Your task to perform on an android device: remove spam from my inbox in the gmail app Image 0: 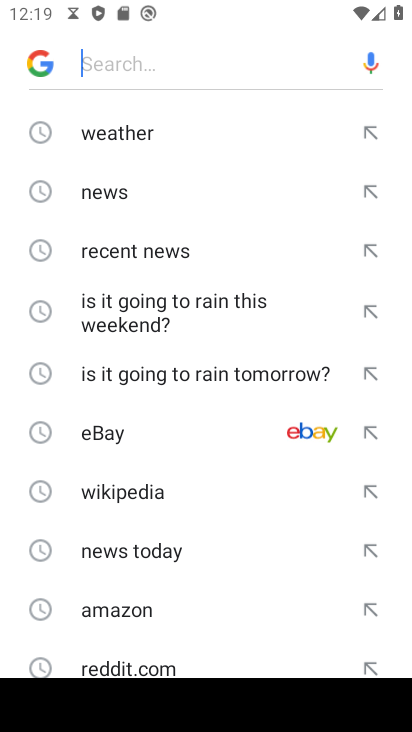
Step 0: press back button
Your task to perform on an android device: remove spam from my inbox in the gmail app Image 1: 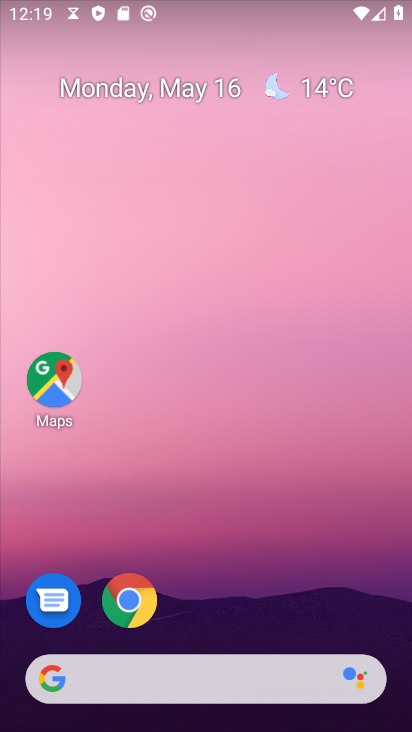
Step 1: click (166, 51)
Your task to perform on an android device: remove spam from my inbox in the gmail app Image 2: 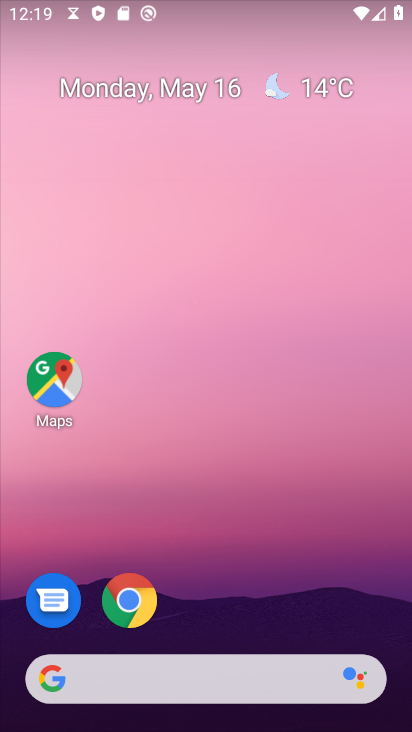
Step 2: drag from (265, 586) to (190, 37)
Your task to perform on an android device: remove spam from my inbox in the gmail app Image 3: 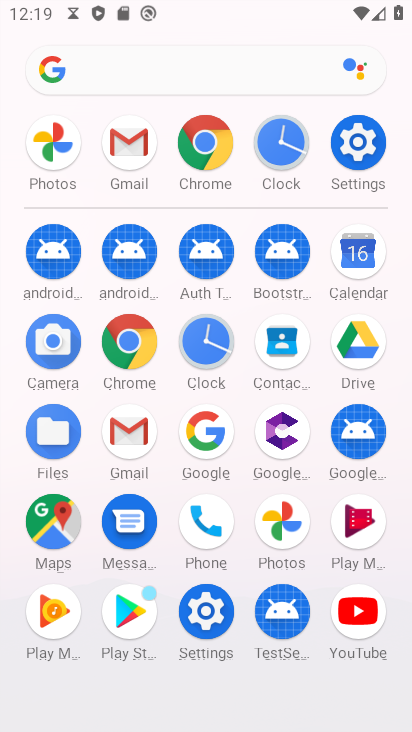
Step 3: click (127, 131)
Your task to perform on an android device: remove spam from my inbox in the gmail app Image 4: 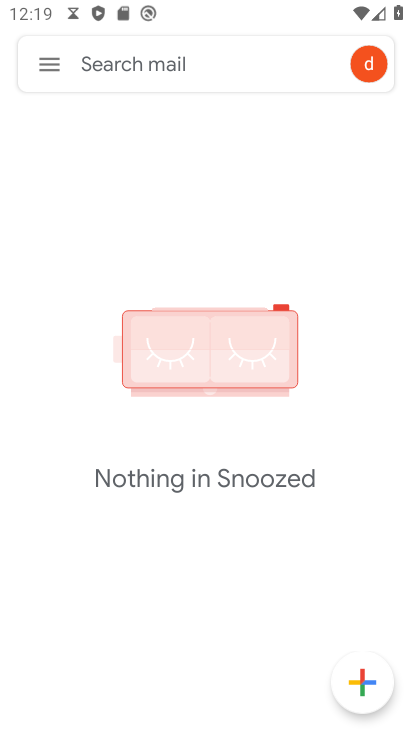
Step 4: click (58, 63)
Your task to perform on an android device: remove spam from my inbox in the gmail app Image 5: 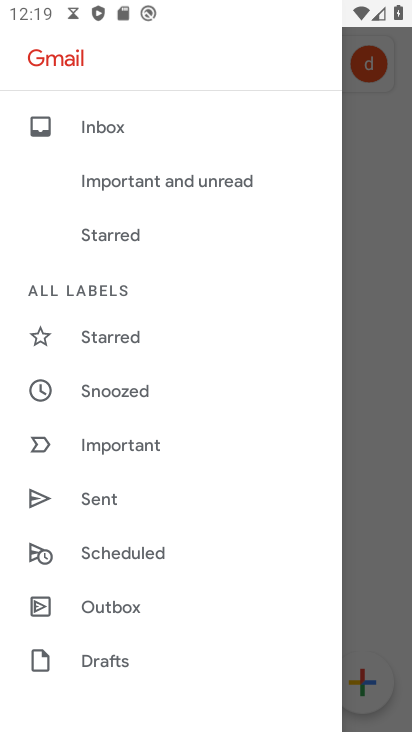
Step 5: click (51, 53)
Your task to perform on an android device: remove spam from my inbox in the gmail app Image 6: 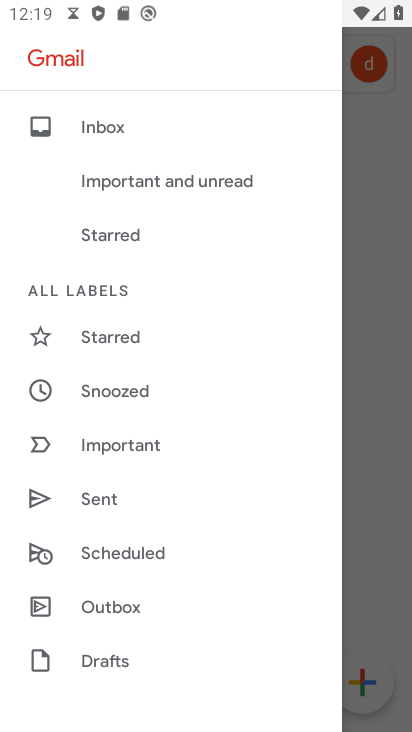
Step 6: click (54, 63)
Your task to perform on an android device: remove spam from my inbox in the gmail app Image 7: 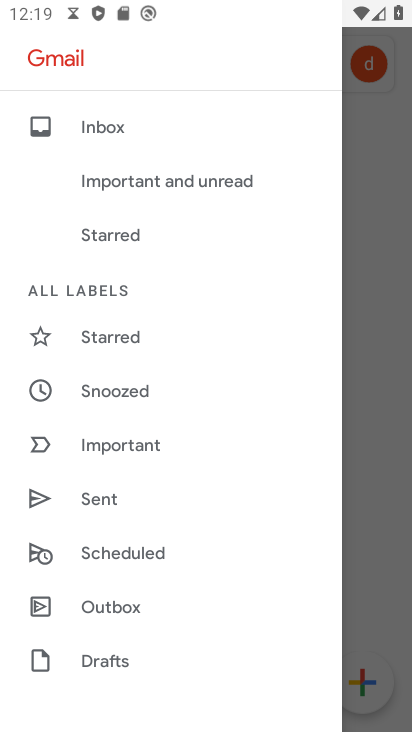
Step 7: click (56, 58)
Your task to perform on an android device: remove spam from my inbox in the gmail app Image 8: 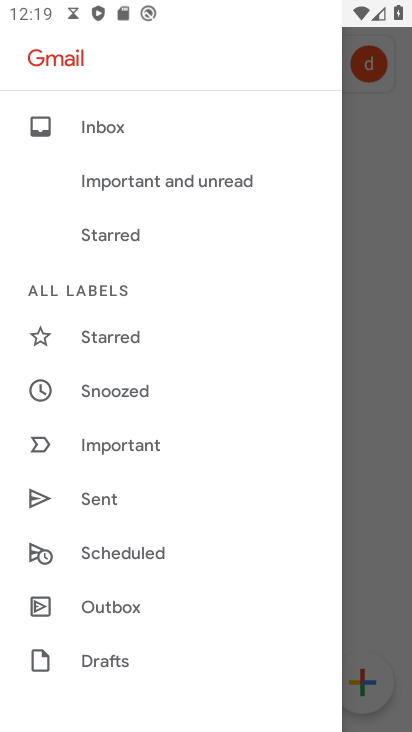
Step 8: drag from (213, 344) to (213, 173)
Your task to perform on an android device: remove spam from my inbox in the gmail app Image 9: 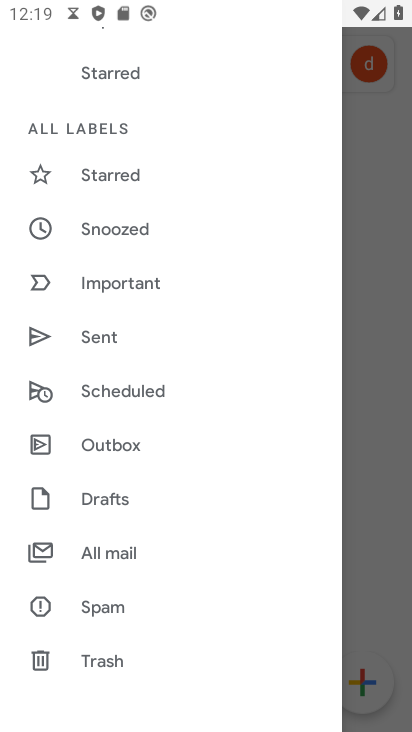
Step 9: click (122, 601)
Your task to perform on an android device: remove spam from my inbox in the gmail app Image 10: 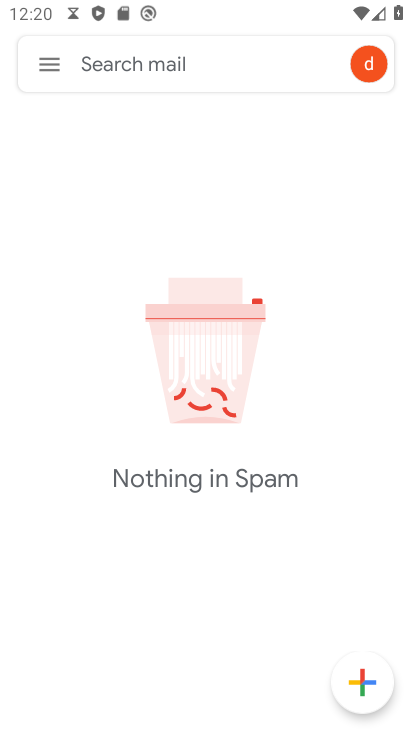
Step 10: task complete